Your task to perform on an android device: Open Google Chrome and open the bookmarks view Image 0: 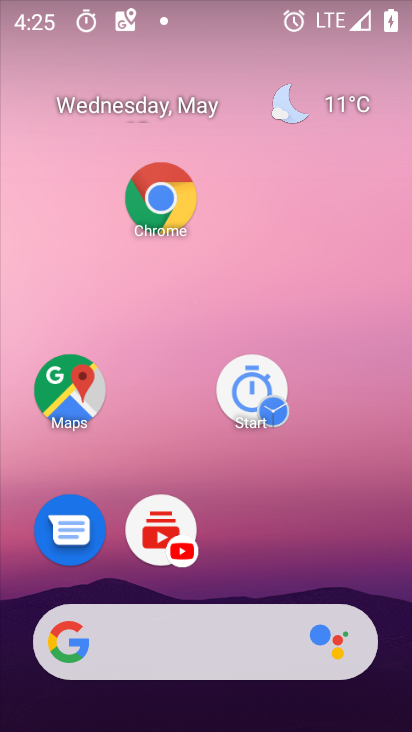
Step 0: drag from (205, 171) to (188, 72)
Your task to perform on an android device: Open Google Chrome and open the bookmarks view Image 1: 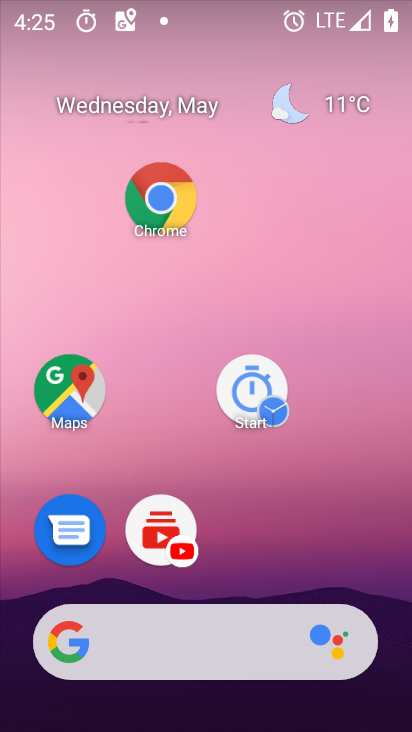
Step 1: drag from (325, 656) to (242, 202)
Your task to perform on an android device: Open Google Chrome and open the bookmarks view Image 2: 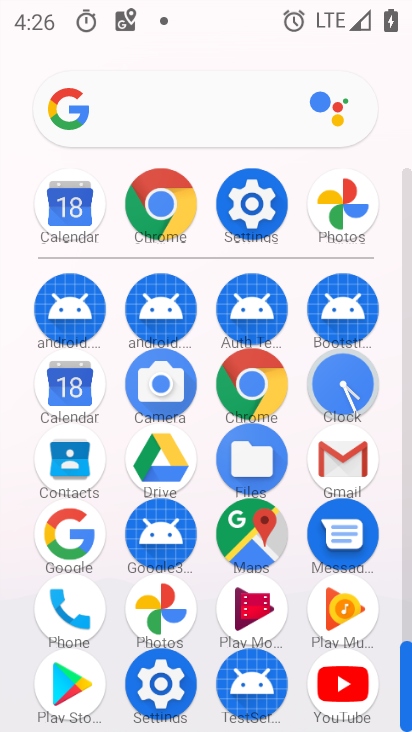
Step 2: click (149, 208)
Your task to perform on an android device: Open Google Chrome and open the bookmarks view Image 3: 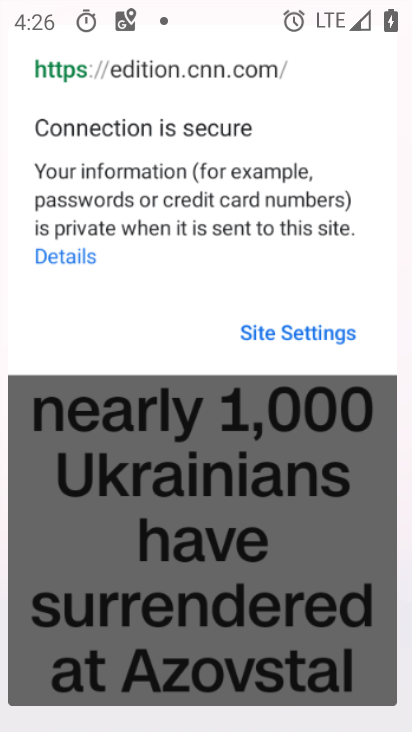
Step 3: click (149, 208)
Your task to perform on an android device: Open Google Chrome and open the bookmarks view Image 4: 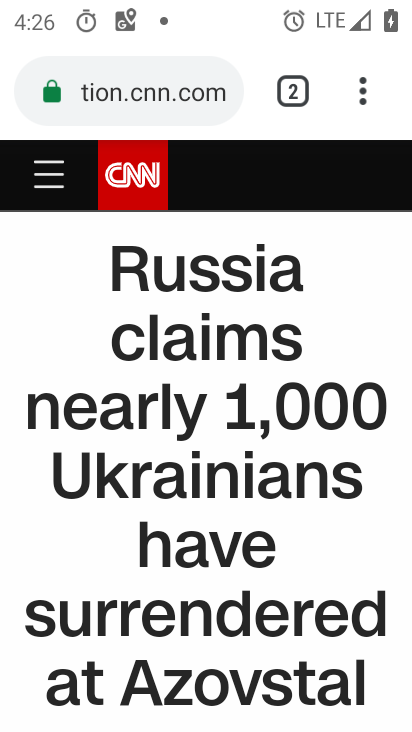
Step 4: drag from (357, 96) to (78, 352)
Your task to perform on an android device: Open Google Chrome and open the bookmarks view Image 5: 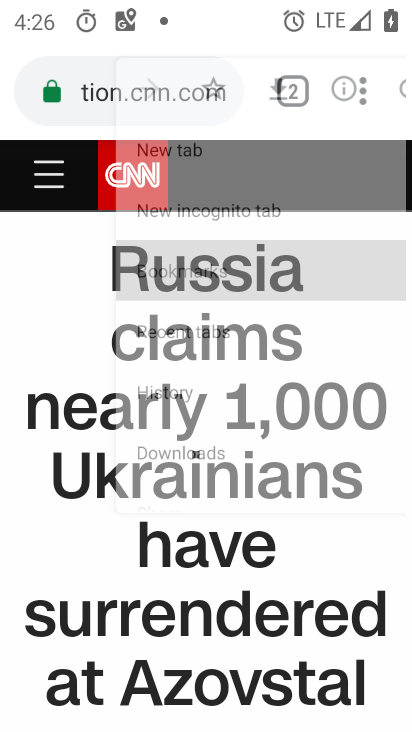
Step 5: click (78, 352)
Your task to perform on an android device: Open Google Chrome and open the bookmarks view Image 6: 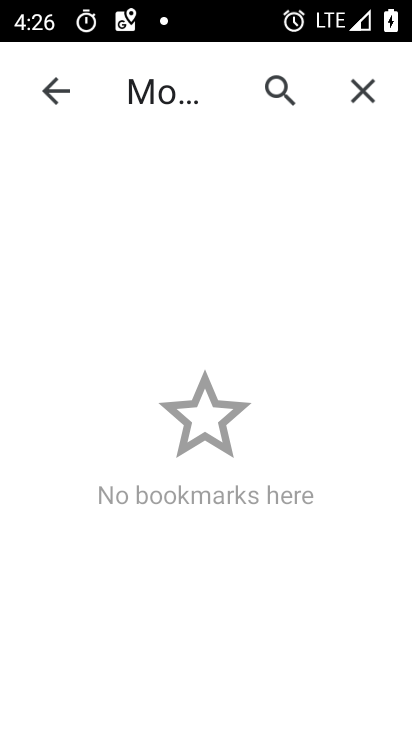
Step 6: task complete